Your task to perform on an android device: delete a single message in the gmail app Image 0: 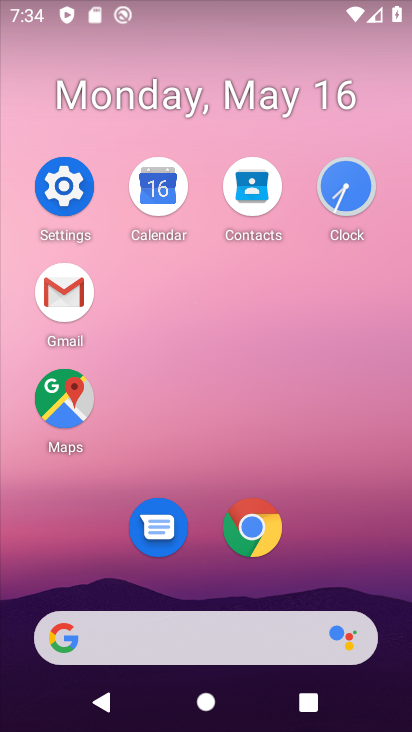
Step 0: click (66, 292)
Your task to perform on an android device: delete a single message in the gmail app Image 1: 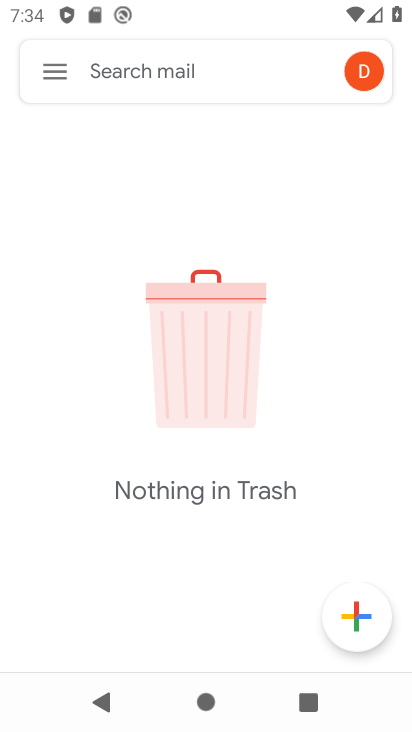
Step 1: click (45, 88)
Your task to perform on an android device: delete a single message in the gmail app Image 2: 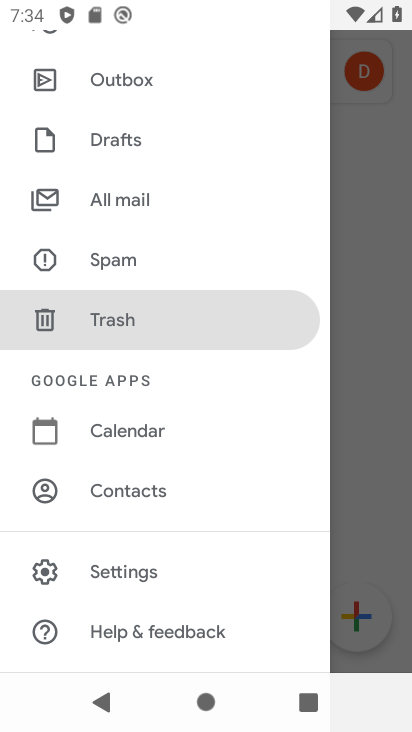
Step 2: click (152, 196)
Your task to perform on an android device: delete a single message in the gmail app Image 3: 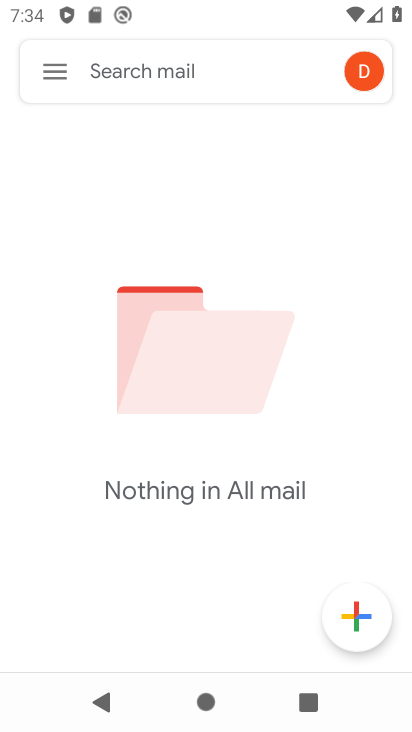
Step 3: task complete